Your task to perform on an android device: change notification settings in the gmail app Image 0: 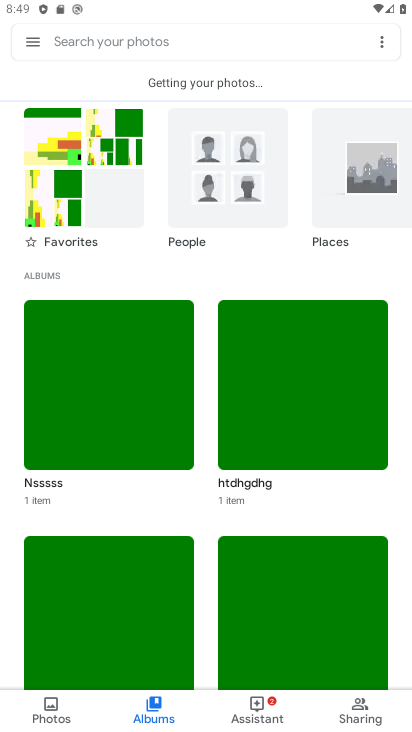
Step 0: press home button
Your task to perform on an android device: change notification settings in the gmail app Image 1: 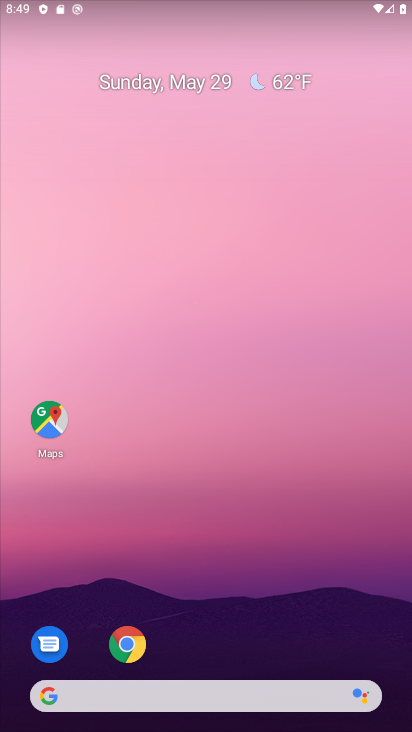
Step 1: drag from (118, 729) to (108, 73)
Your task to perform on an android device: change notification settings in the gmail app Image 2: 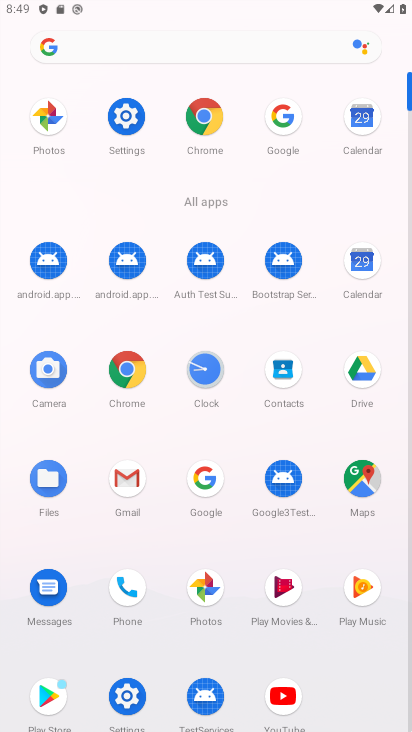
Step 2: click (119, 483)
Your task to perform on an android device: change notification settings in the gmail app Image 3: 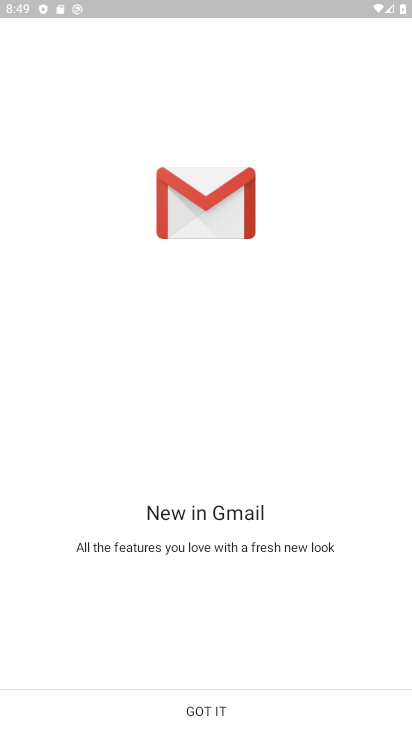
Step 3: click (230, 718)
Your task to perform on an android device: change notification settings in the gmail app Image 4: 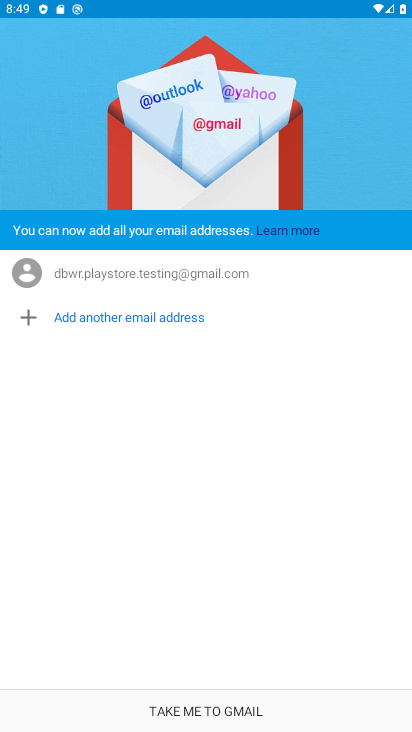
Step 4: click (236, 714)
Your task to perform on an android device: change notification settings in the gmail app Image 5: 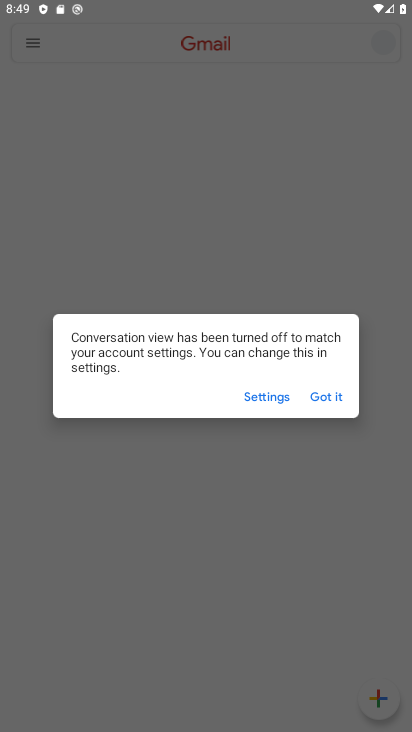
Step 5: click (318, 399)
Your task to perform on an android device: change notification settings in the gmail app Image 6: 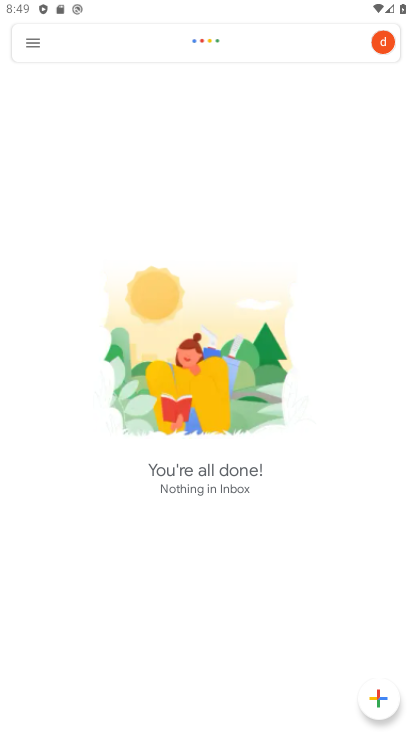
Step 6: click (31, 47)
Your task to perform on an android device: change notification settings in the gmail app Image 7: 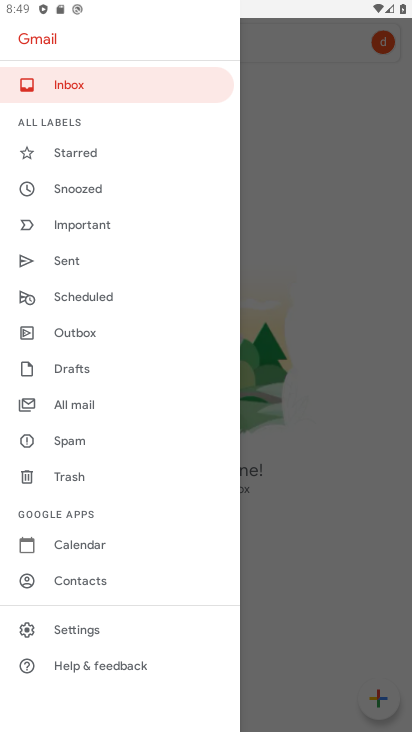
Step 7: click (73, 634)
Your task to perform on an android device: change notification settings in the gmail app Image 8: 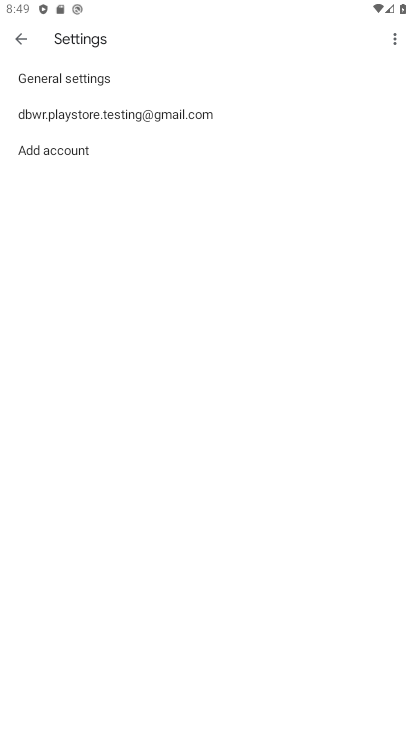
Step 8: click (163, 114)
Your task to perform on an android device: change notification settings in the gmail app Image 9: 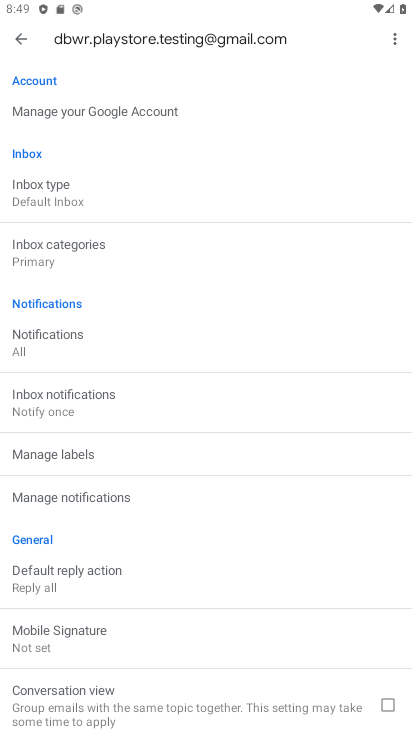
Step 9: click (94, 401)
Your task to perform on an android device: change notification settings in the gmail app Image 10: 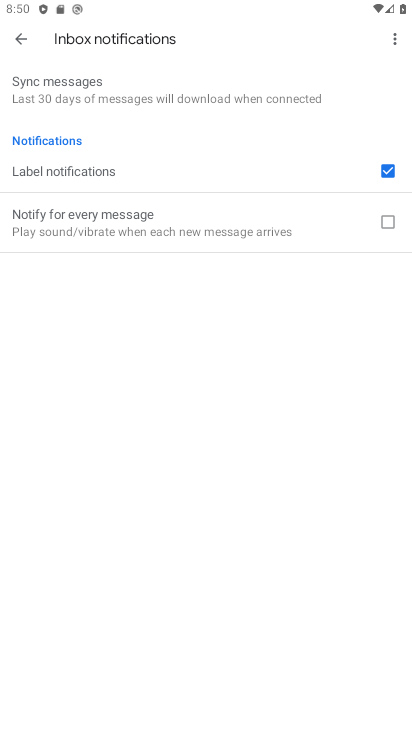
Step 10: click (387, 223)
Your task to perform on an android device: change notification settings in the gmail app Image 11: 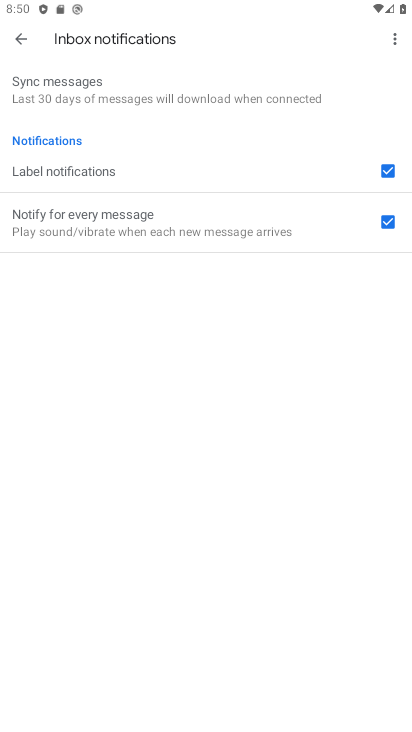
Step 11: task complete